Your task to perform on an android device: What's the weather? Image 0: 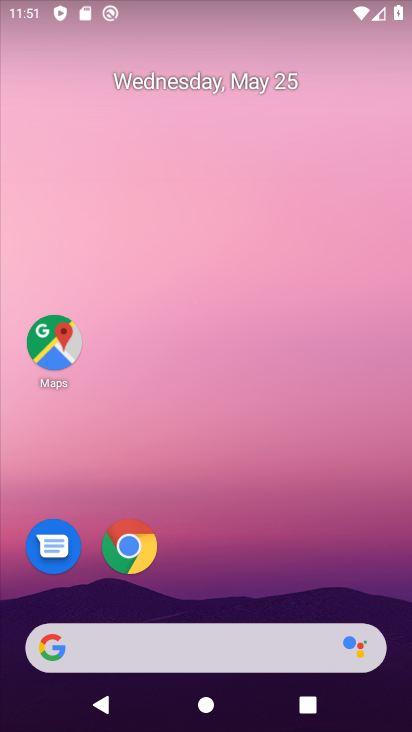
Step 0: click (205, 660)
Your task to perform on an android device: What's the weather? Image 1: 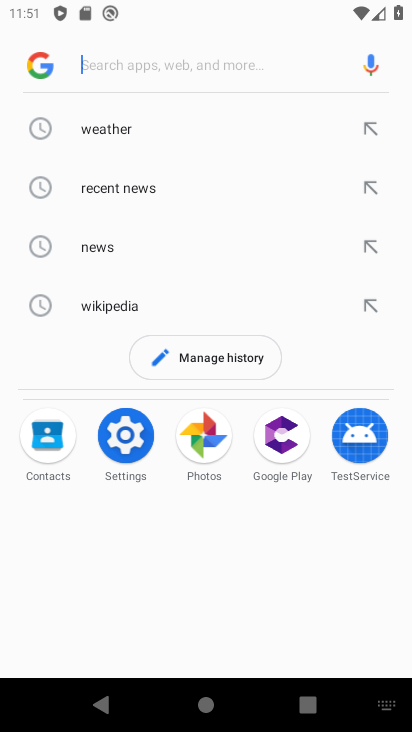
Step 1: click (175, 134)
Your task to perform on an android device: What's the weather? Image 2: 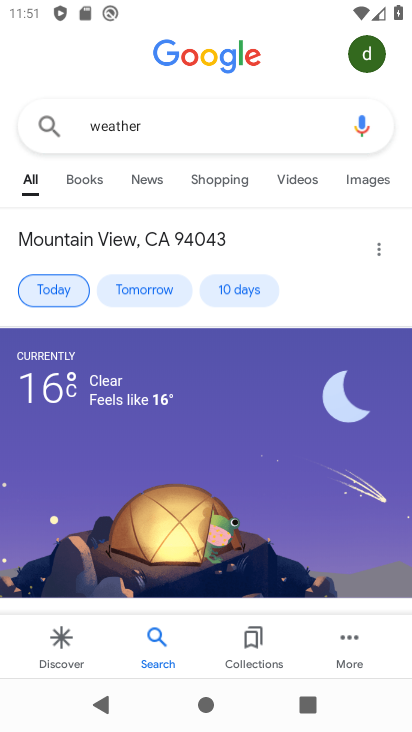
Step 2: task complete